Your task to perform on an android device: check out phone information Image 0: 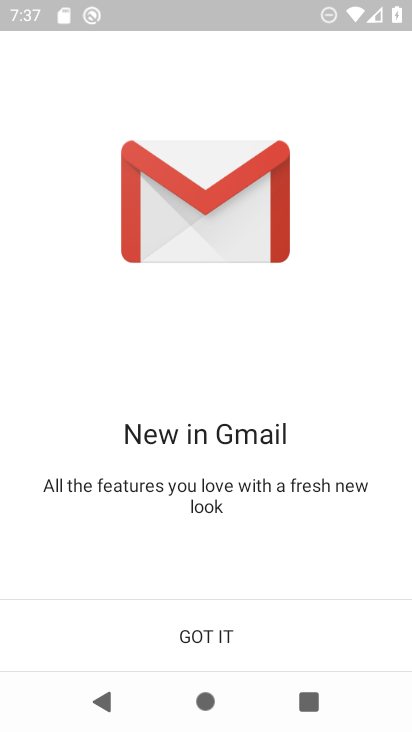
Step 0: click (385, 648)
Your task to perform on an android device: check out phone information Image 1: 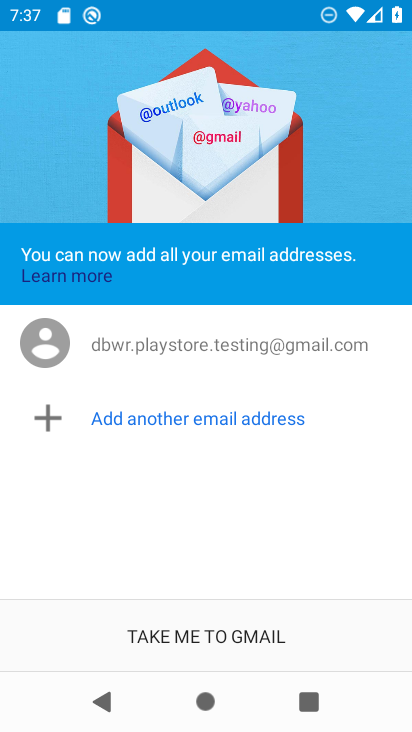
Step 1: click (370, 638)
Your task to perform on an android device: check out phone information Image 2: 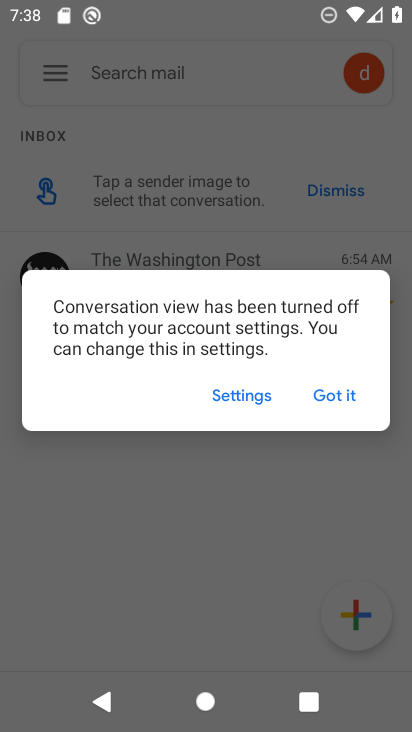
Step 2: click (341, 389)
Your task to perform on an android device: check out phone information Image 3: 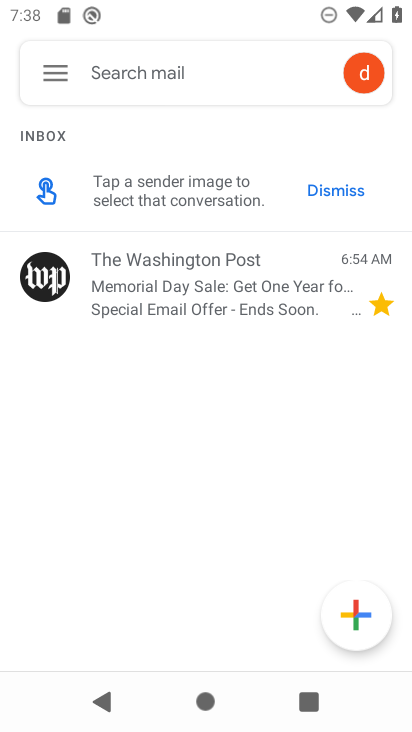
Step 3: press home button
Your task to perform on an android device: check out phone information Image 4: 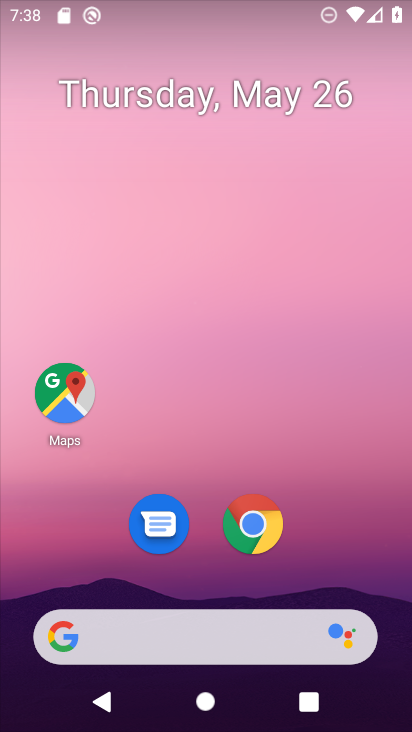
Step 4: drag from (198, 461) to (221, 25)
Your task to perform on an android device: check out phone information Image 5: 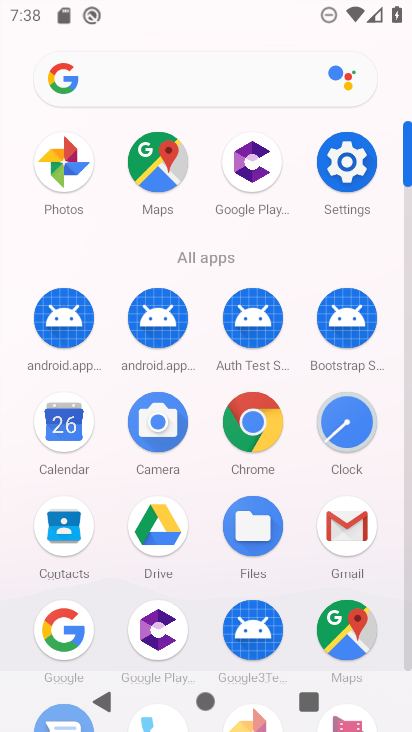
Step 5: drag from (201, 472) to (203, 149)
Your task to perform on an android device: check out phone information Image 6: 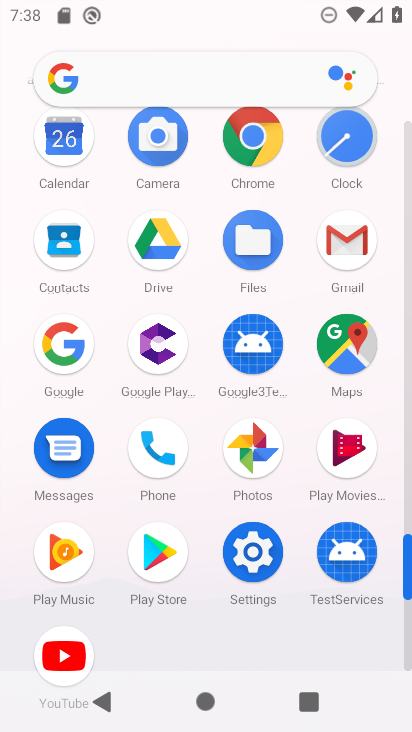
Step 6: click (158, 444)
Your task to perform on an android device: check out phone information Image 7: 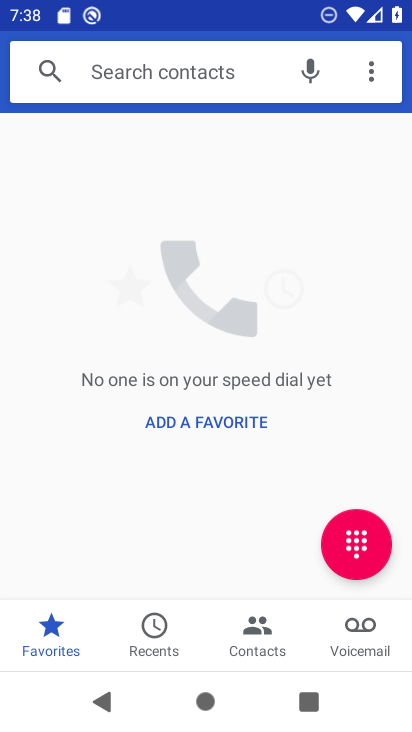
Step 7: click (370, 70)
Your task to perform on an android device: check out phone information Image 8: 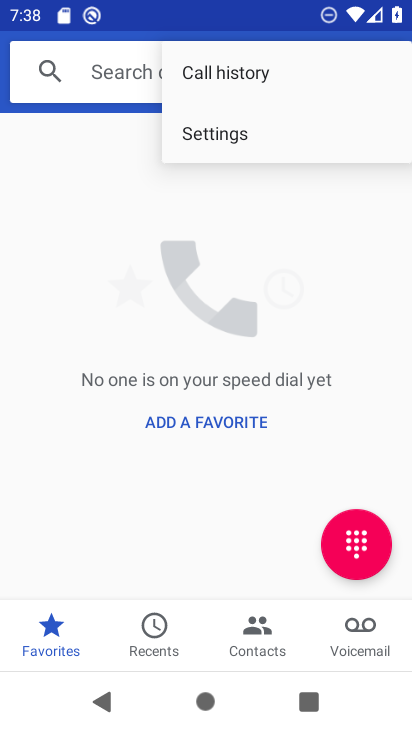
Step 8: click (269, 131)
Your task to perform on an android device: check out phone information Image 9: 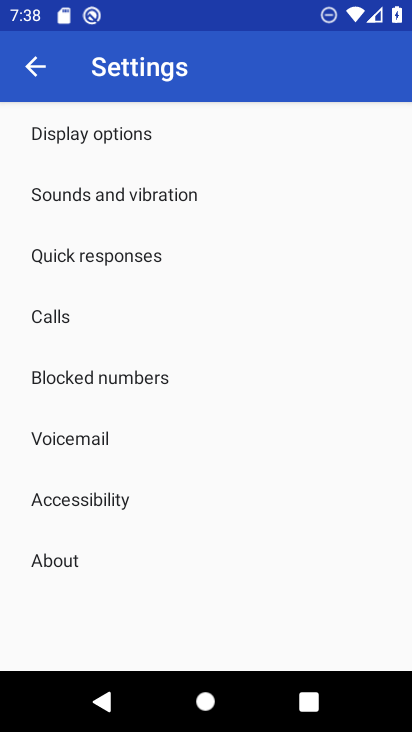
Step 9: click (58, 552)
Your task to perform on an android device: check out phone information Image 10: 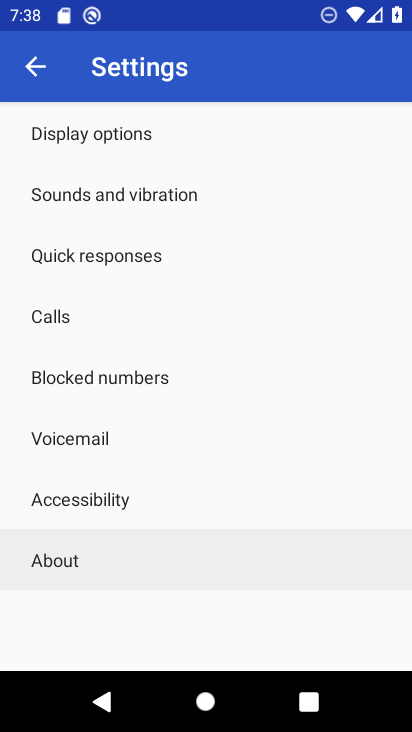
Step 10: click (61, 559)
Your task to perform on an android device: check out phone information Image 11: 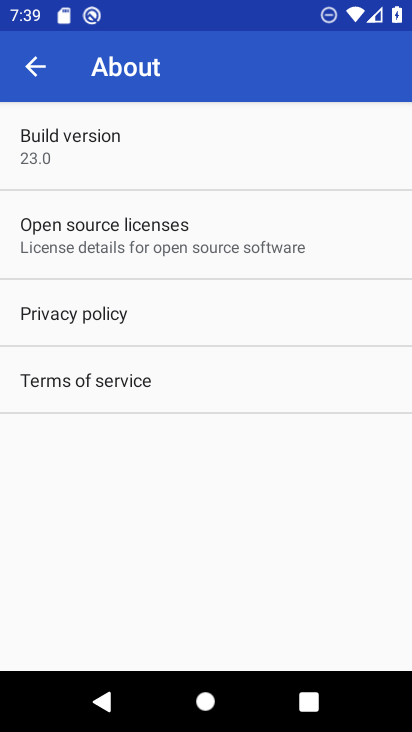
Step 11: task complete